Your task to perform on an android device: Go to Reddit.com Image 0: 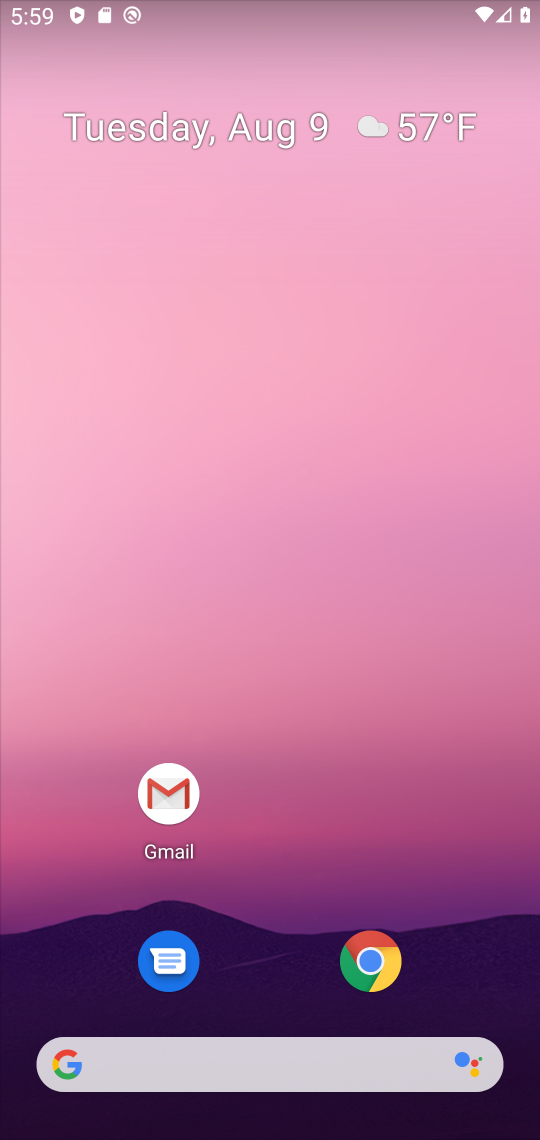
Step 0: drag from (217, 742) to (339, 258)
Your task to perform on an android device: Go to Reddit.com Image 1: 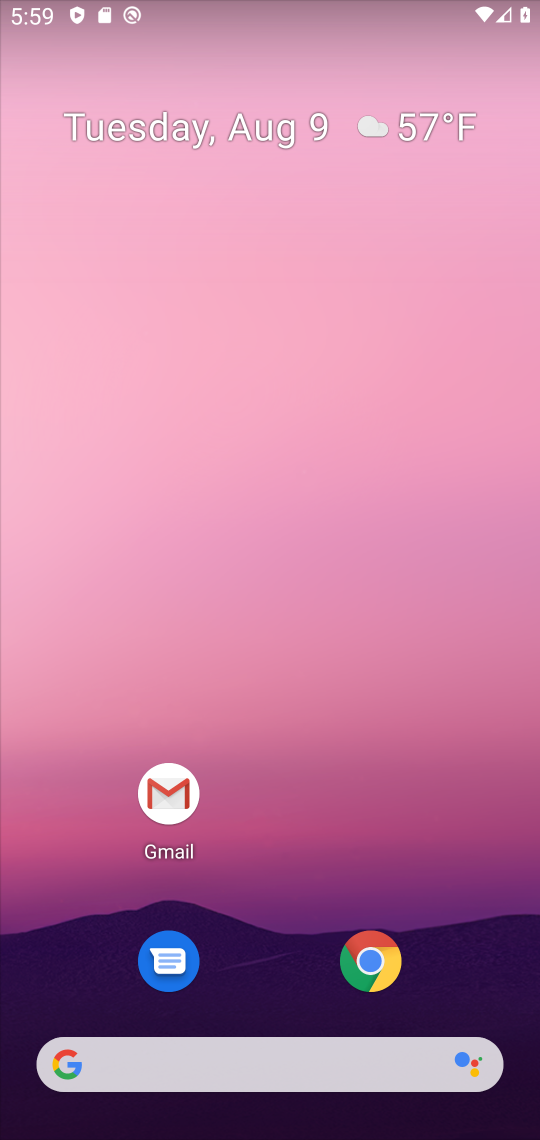
Step 1: drag from (348, 913) to (325, 282)
Your task to perform on an android device: Go to Reddit.com Image 2: 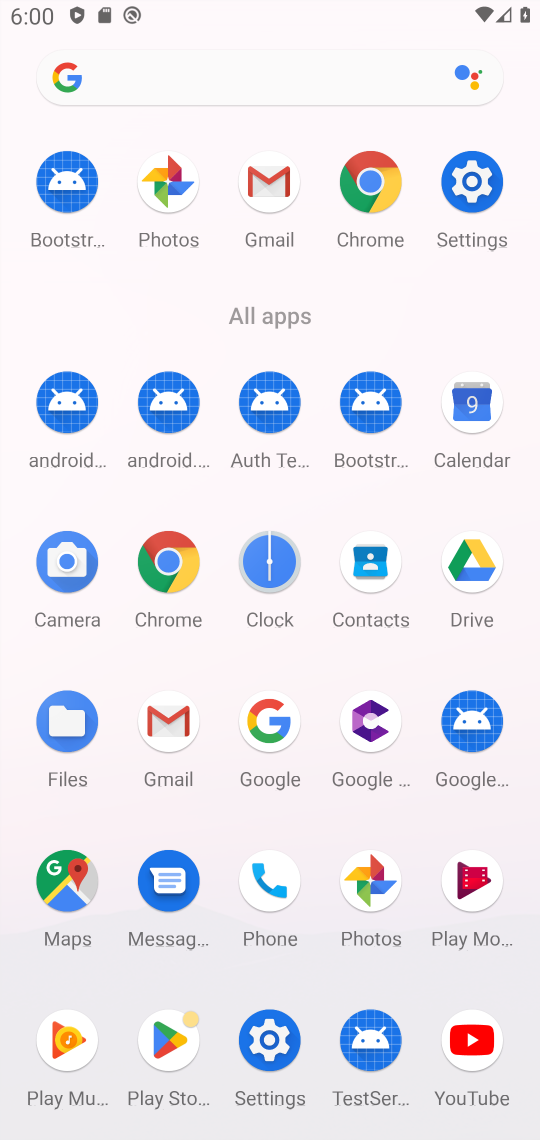
Step 2: click (378, 195)
Your task to perform on an android device: Go to Reddit.com Image 3: 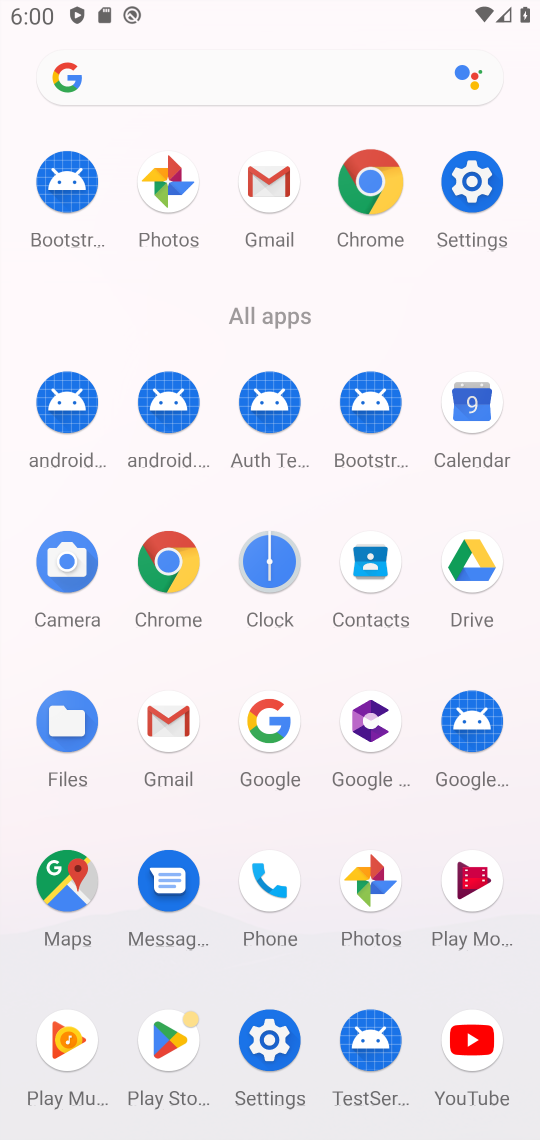
Step 3: click (380, 192)
Your task to perform on an android device: Go to Reddit.com Image 4: 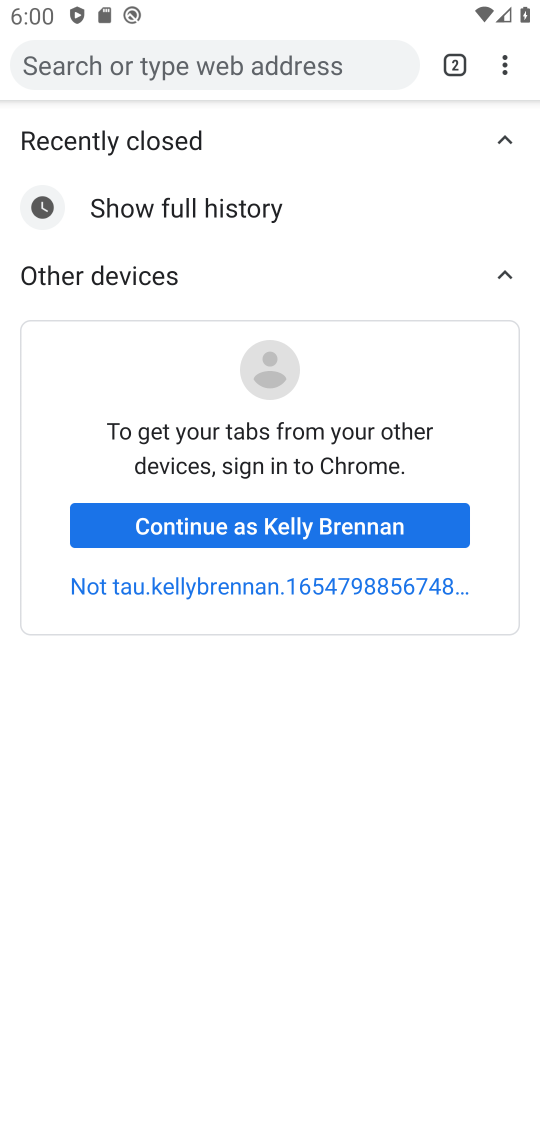
Step 4: click (495, 73)
Your task to perform on an android device: Go to Reddit.com Image 5: 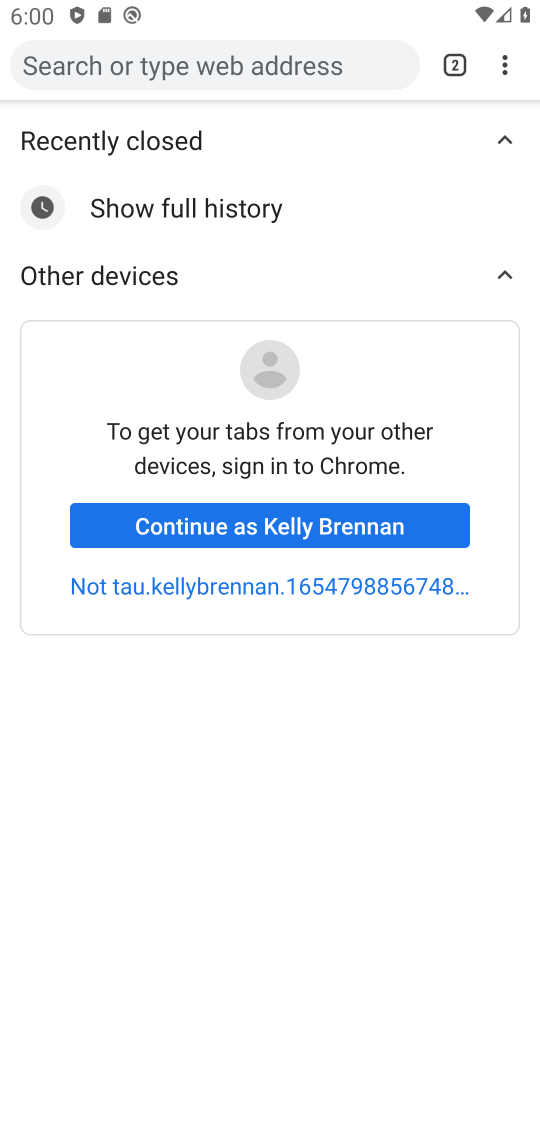
Step 5: drag from (508, 70) to (291, 131)
Your task to perform on an android device: Go to Reddit.com Image 6: 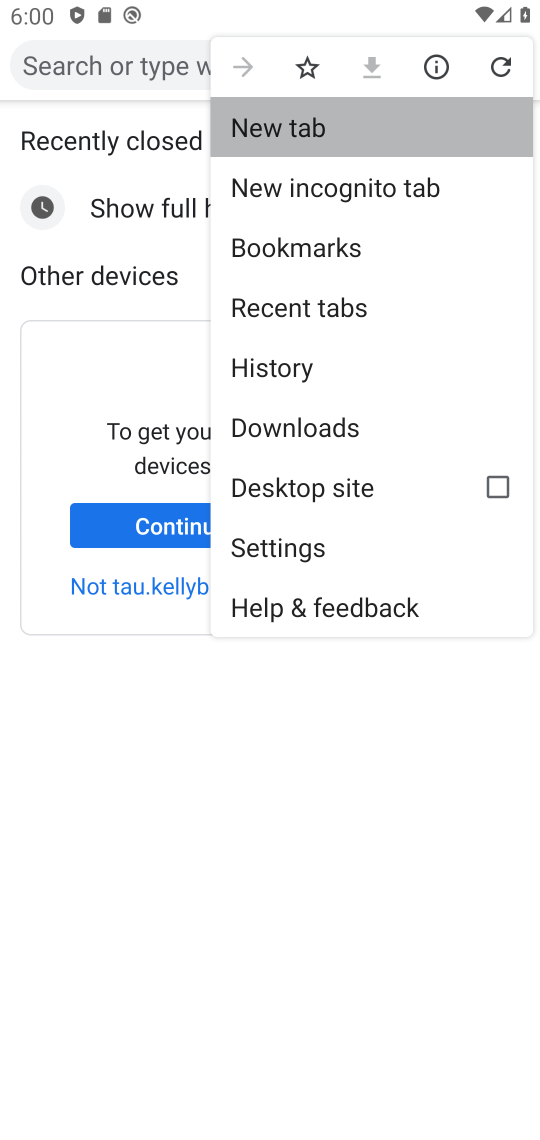
Step 6: click (288, 128)
Your task to perform on an android device: Go to Reddit.com Image 7: 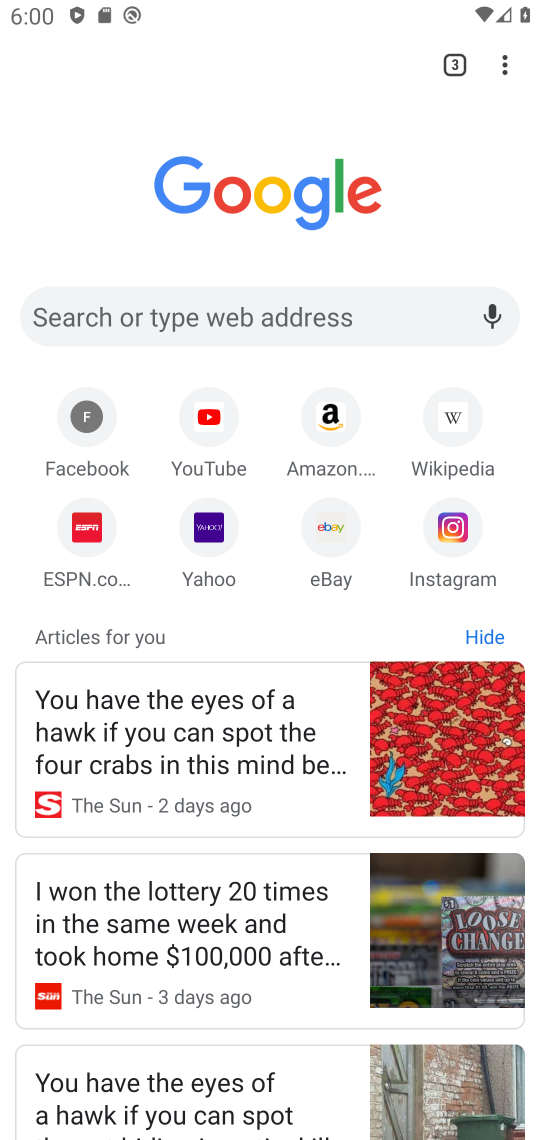
Step 7: click (54, 303)
Your task to perform on an android device: Go to Reddit.com Image 8: 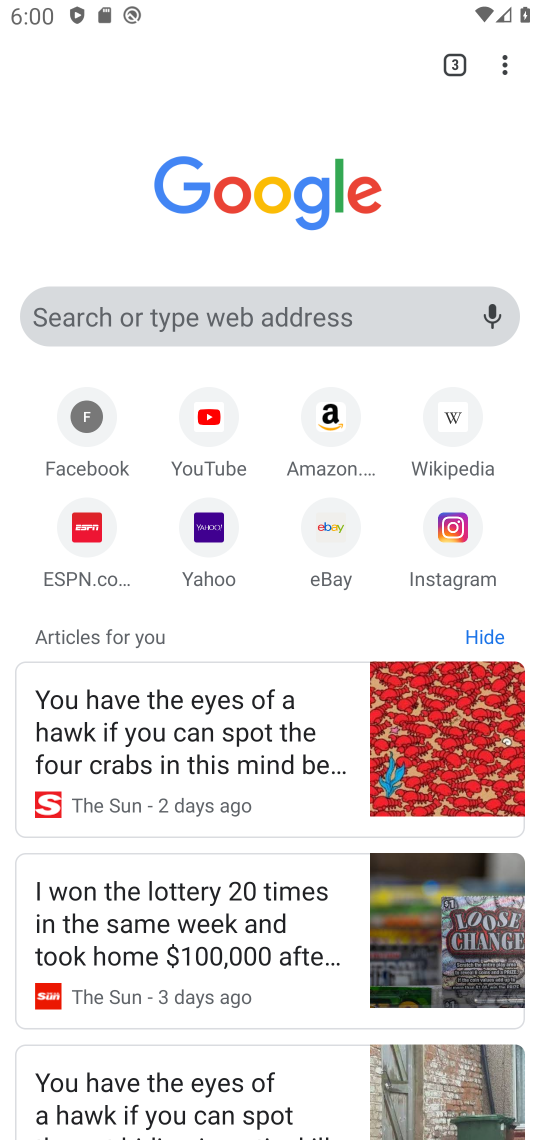
Step 8: click (61, 309)
Your task to perform on an android device: Go to Reddit.com Image 9: 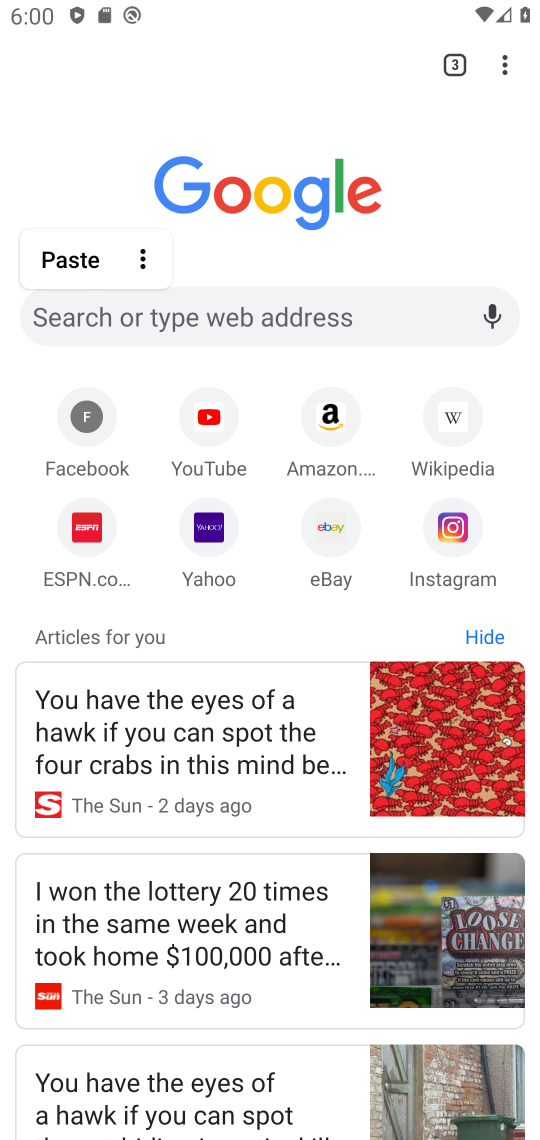
Step 9: type "reddit.com"
Your task to perform on an android device: Go to Reddit.com Image 10: 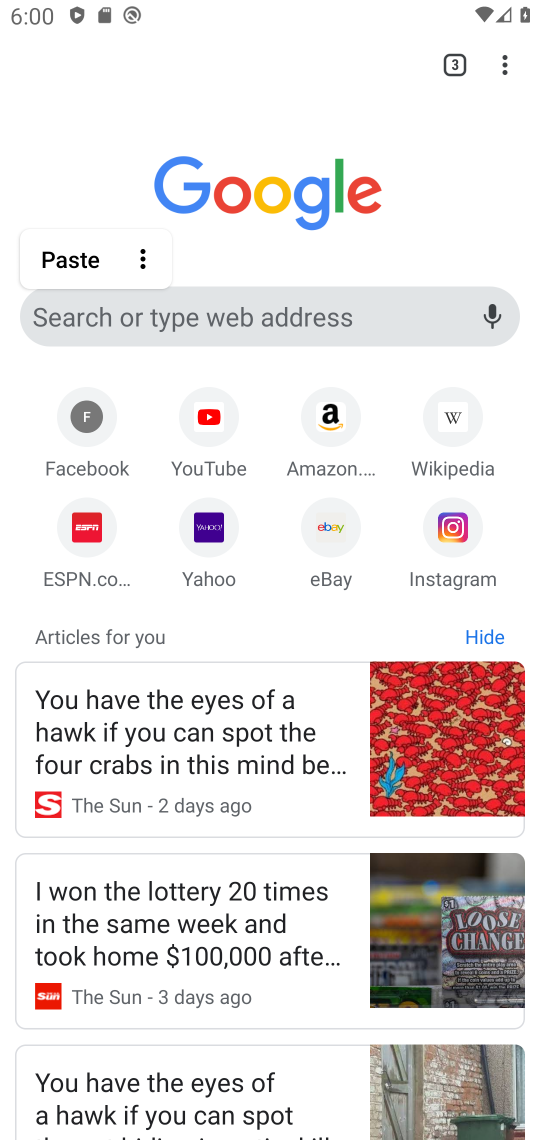
Step 10: click (84, 326)
Your task to perform on an android device: Go to Reddit.com Image 11: 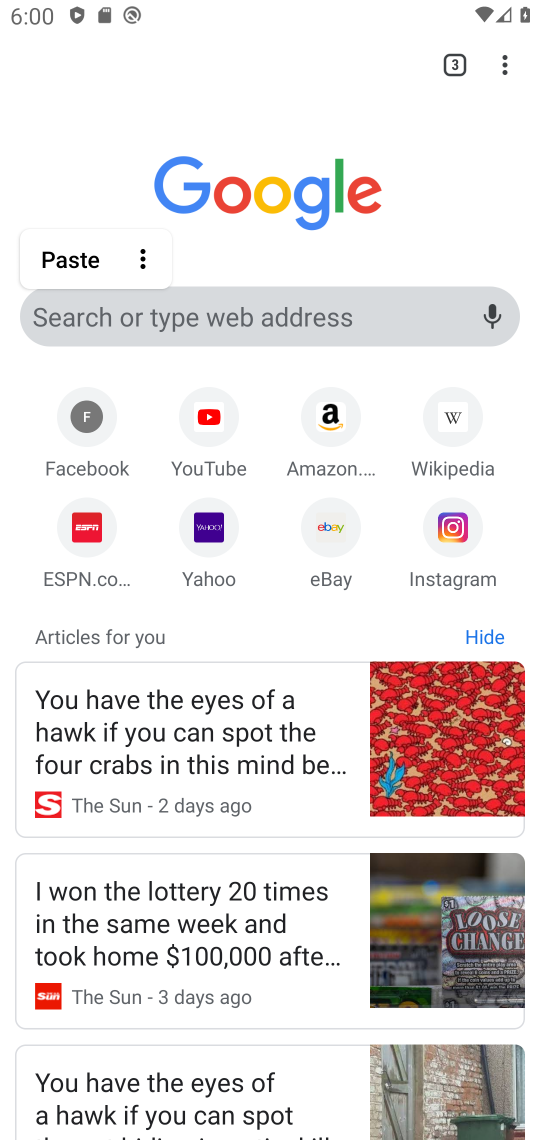
Step 11: click (84, 326)
Your task to perform on an android device: Go to Reddit.com Image 12: 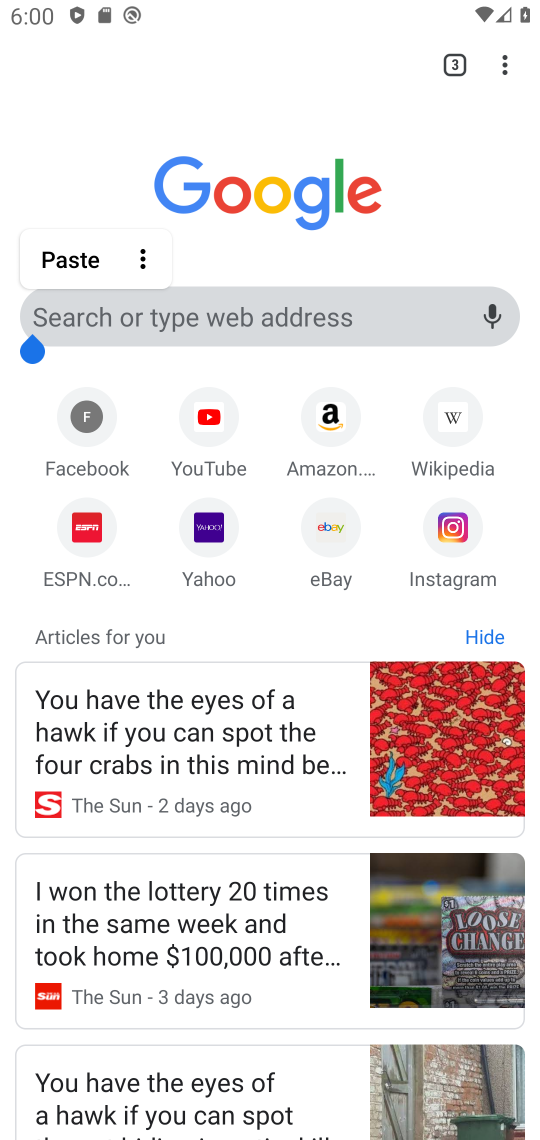
Step 12: click (85, 313)
Your task to perform on an android device: Go to Reddit.com Image 13: 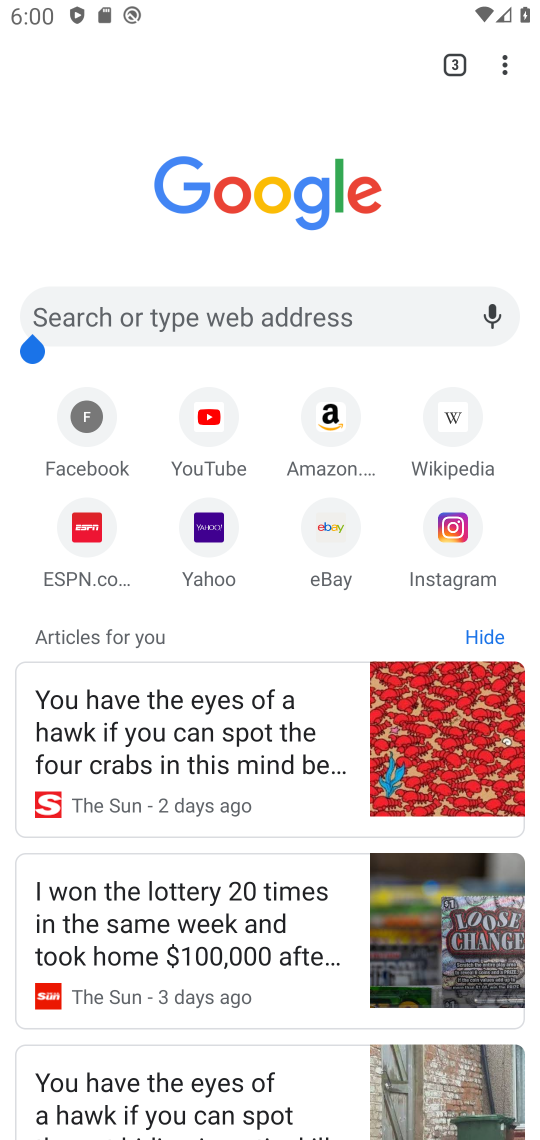
Step 13: click (85, 313)
Your task to perform on an android device: Go to Reddit.com Image 14: 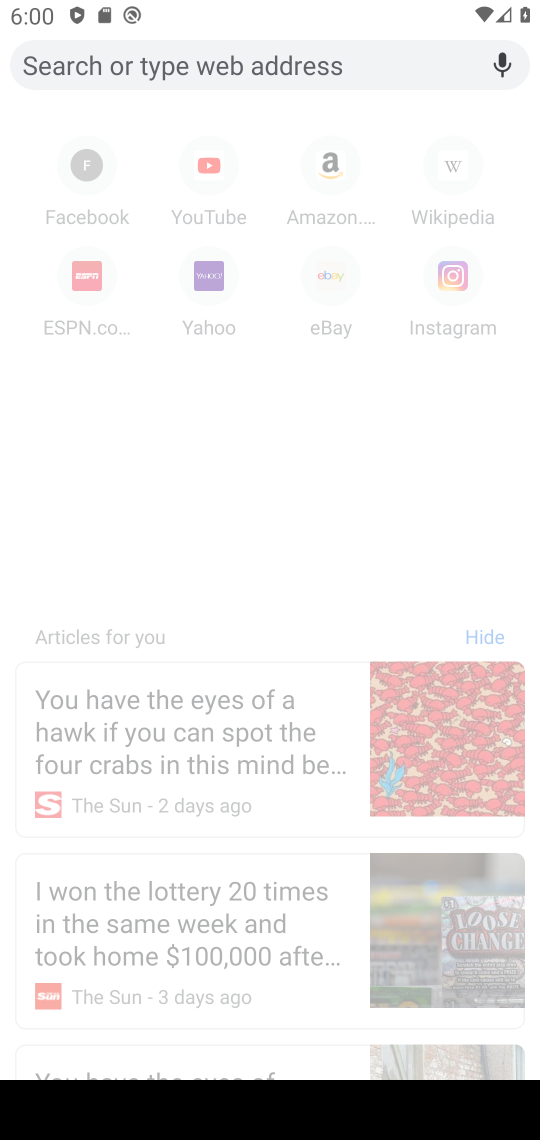
Step 14: type "reddit.com"
Your task to perform on an android device: Go to Reddit.com Image 15: 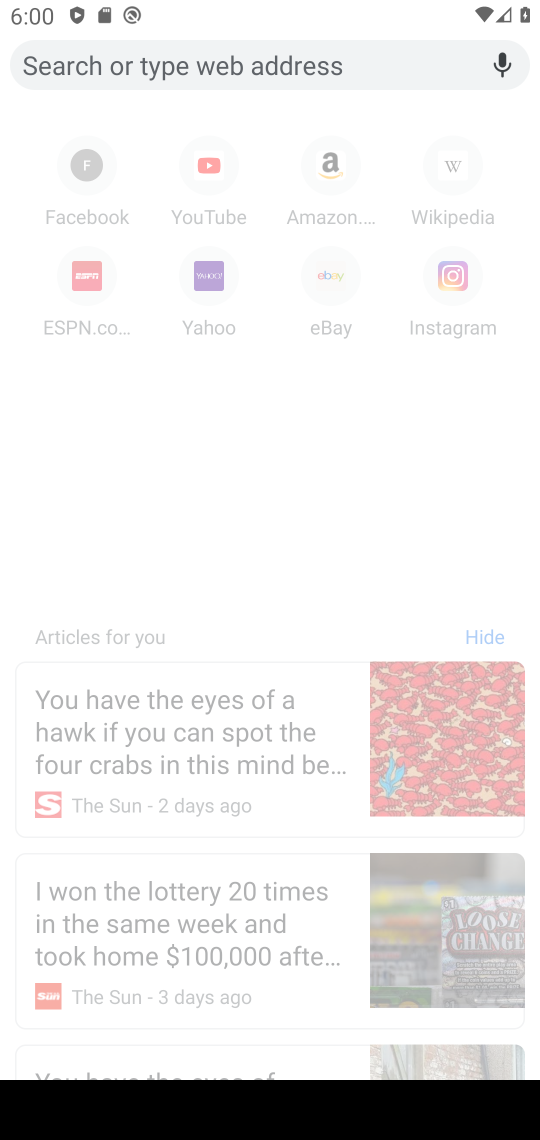
Step 15: click (209, 89)
Your task to perform on an android device: Go to Reddit.com Image 16: 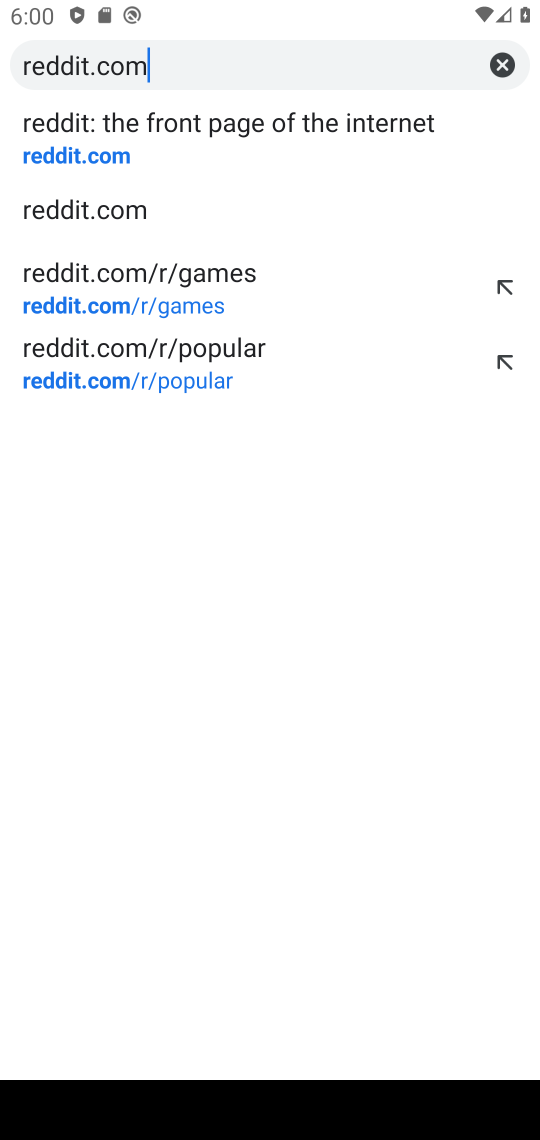
Step 16: click (349, 95)
Your task to perform on an android device: Go to Reddit.com Image 17: 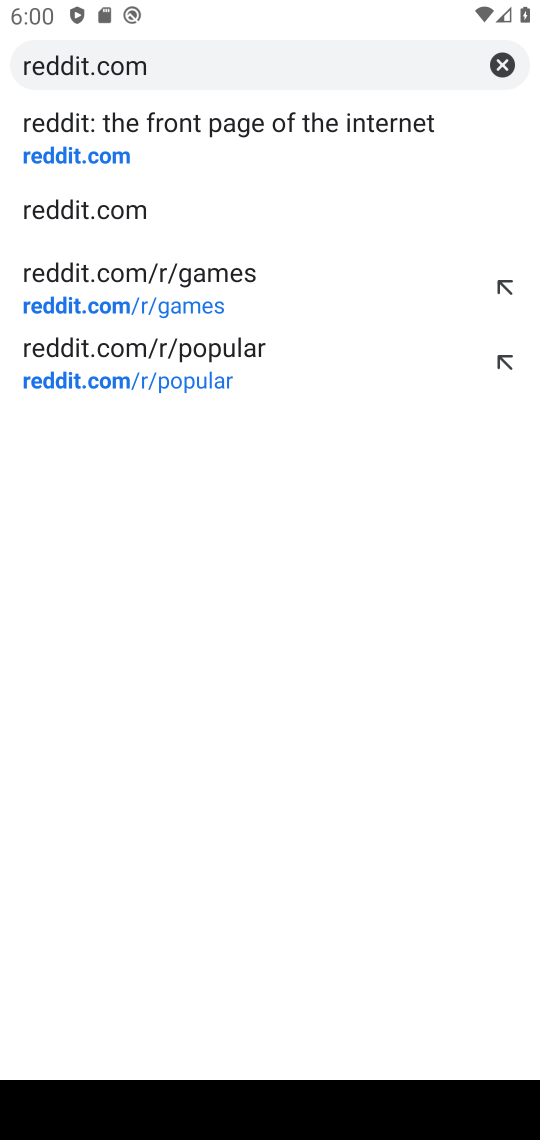
Step 17: click (164, 135)
Your task to perform on an android device: Go to Reddit.com Image 18: 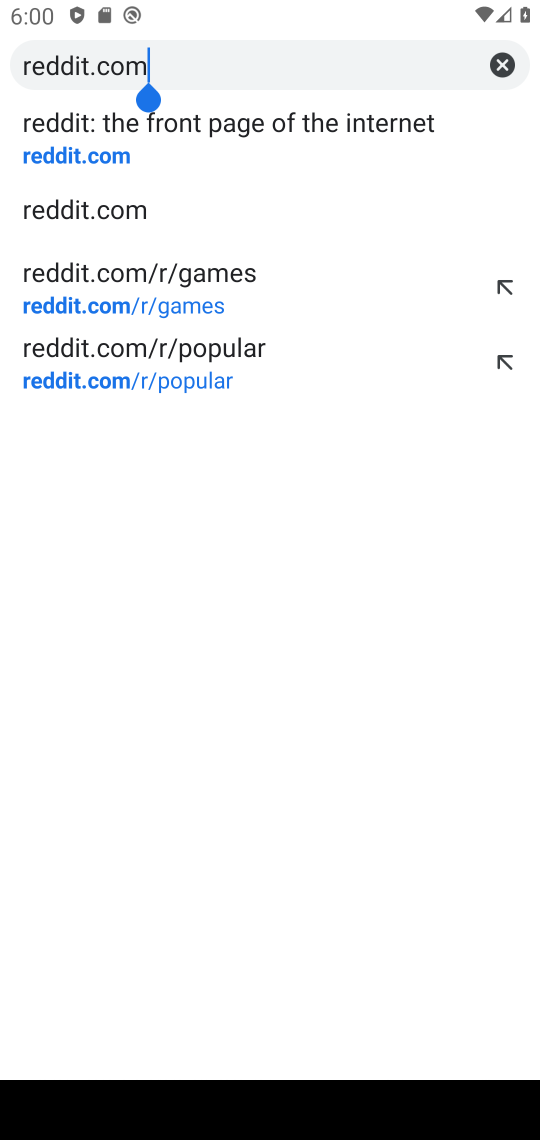
Step 18: click (69, 161)
Your task to perform on an android device: Go to Reddit.com Image 19: 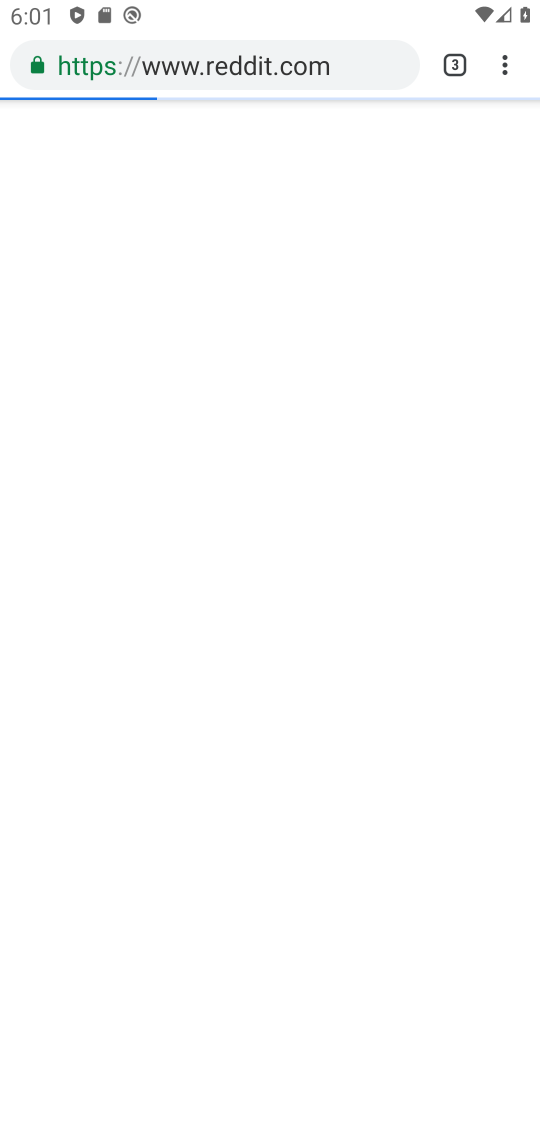
Step 19: task complete